Your task to perform on an android device: toggle sleep mode Image 0: 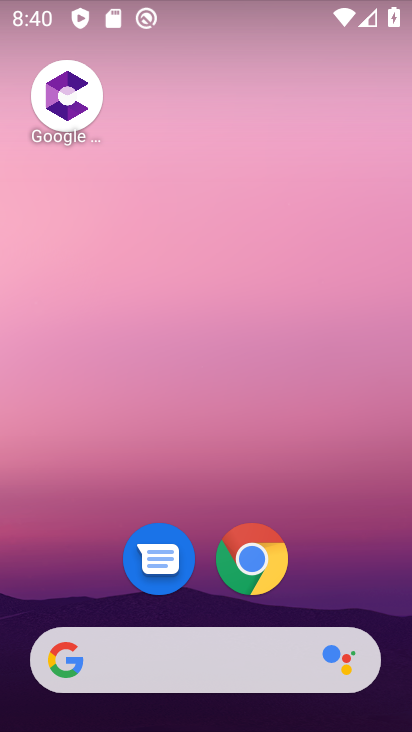
Step 0: drag from (199, 686) to (203, 41)
Your task to perform on an android device: toggle sleep mode Image 1: 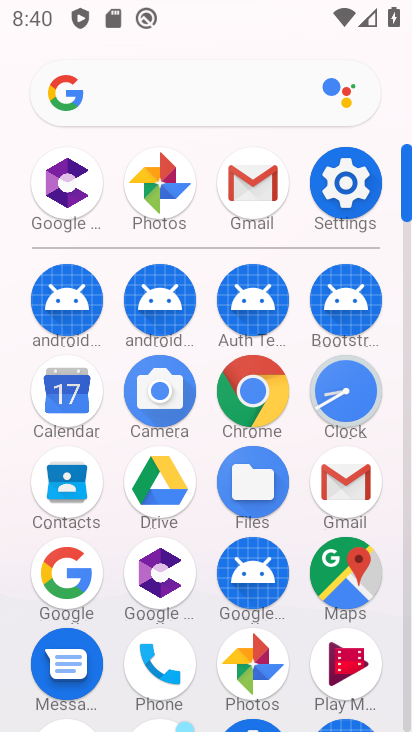
Step 1: click (340, 194)
Your task to perform on an android device: toggle sleep mode Image 2: 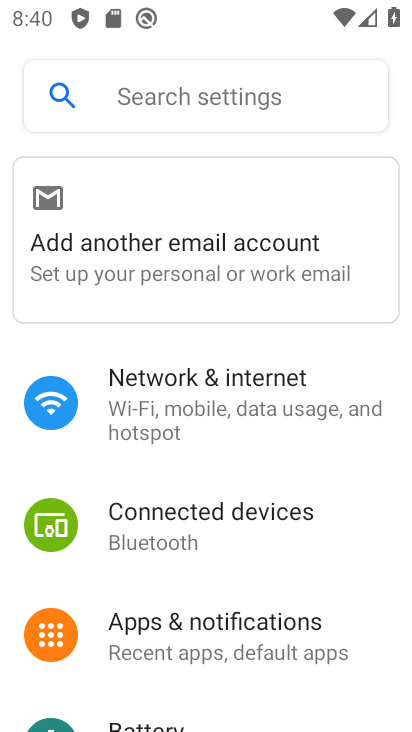
Step 2: drag from (231, 586) to (238, 65)
Your task to perform on an android device: toggle sleep mode Image 3: 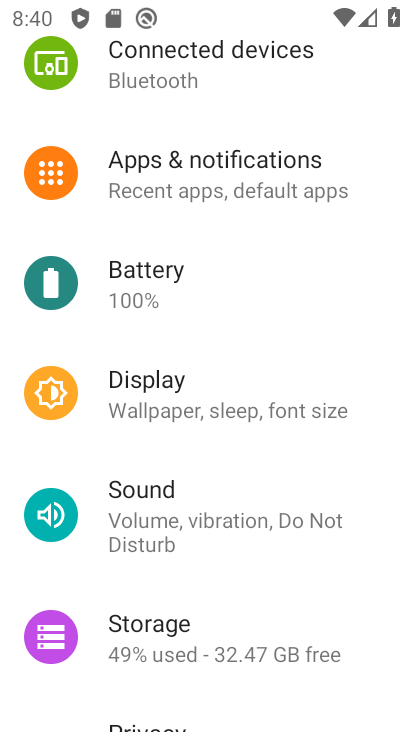
Step 3: click (160, 405)
Your task to perform on an android device: toggle sleep mode Image 4: 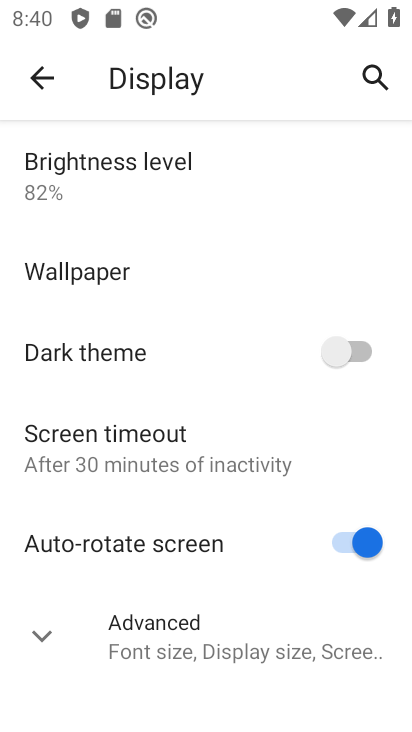
Step 4: click (161, 623)
Your task to perform on an android device: toggle sleep mode Image 5: 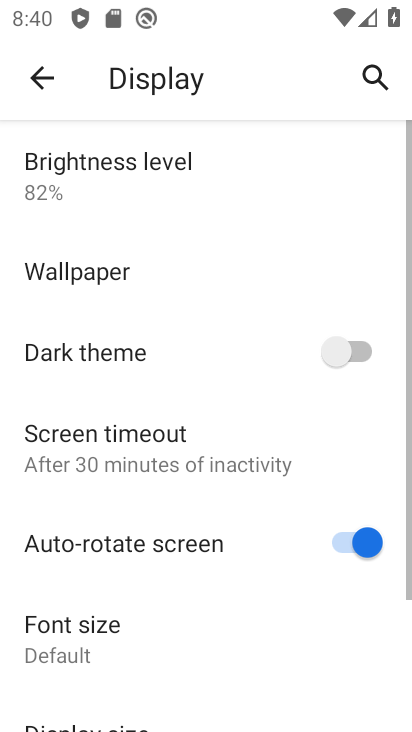
Step 5: task complete